Your task to perform on an android device: Open maps Image 0: 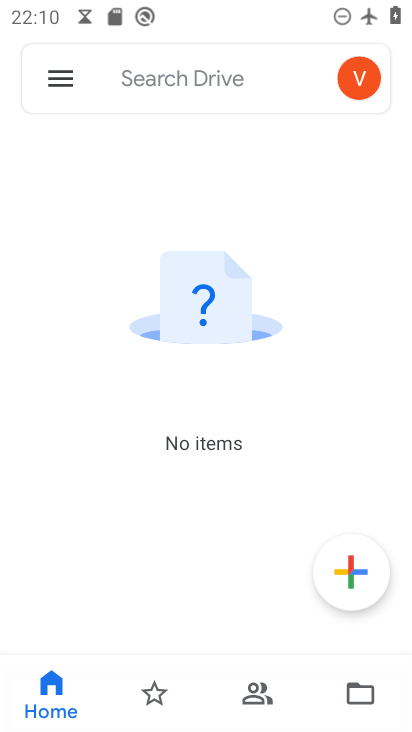
Step 0: press home button
Your task to perform on an android device: Open maps Image 1: 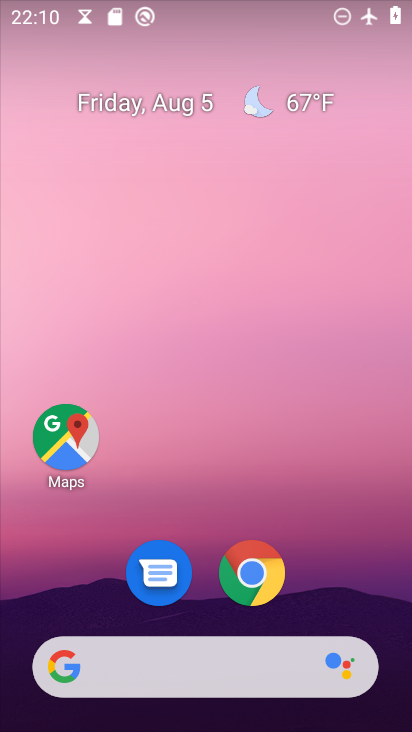
Step 1: click (66, 442)
Your task to perform on an android device: Open maps Image 2: 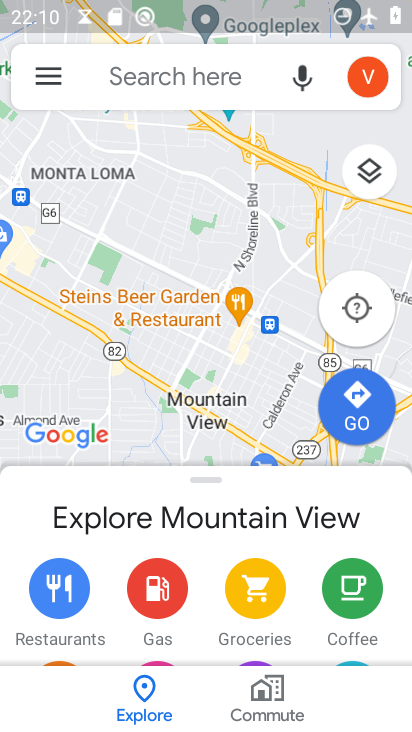
Step 2: task complete